Your task to perform on an android device: turn on showing notifications on the lock screen Image 0: 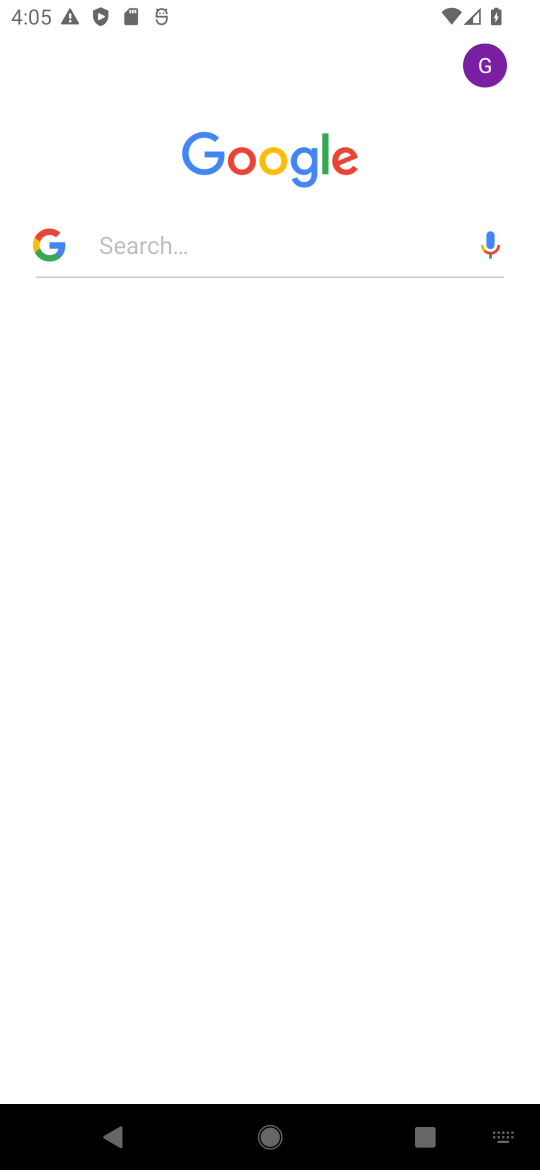
Step 0: press home button
Your task to perform on an android device: turn on showing notifications on the lock screen Image 1: 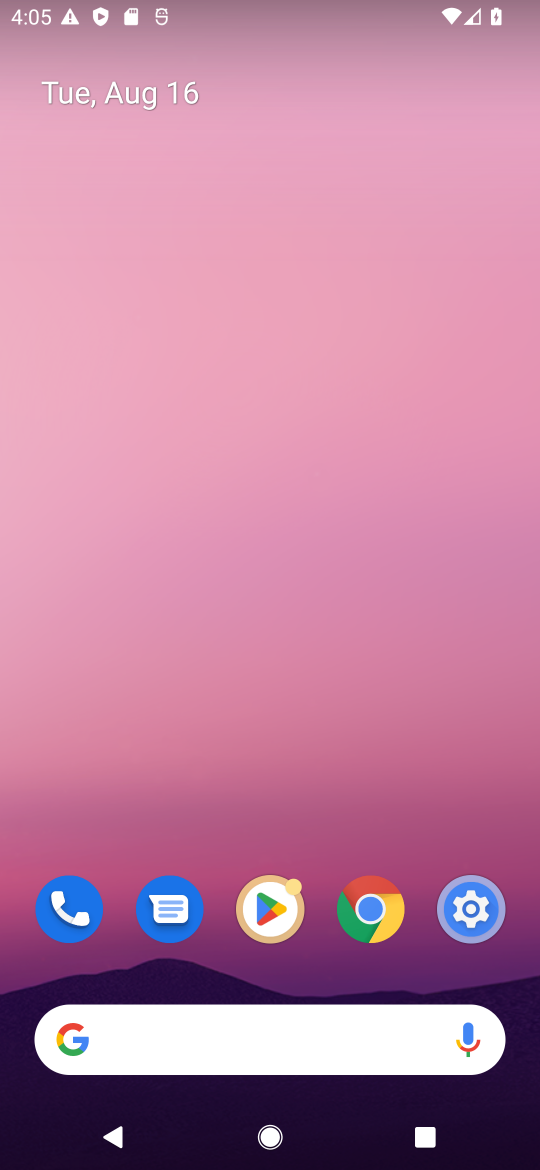
Step 1: drag from (416, 836) to (474, 233)
Your task to perform on an android device: turn on showing notifications on the lock screen Image 2: 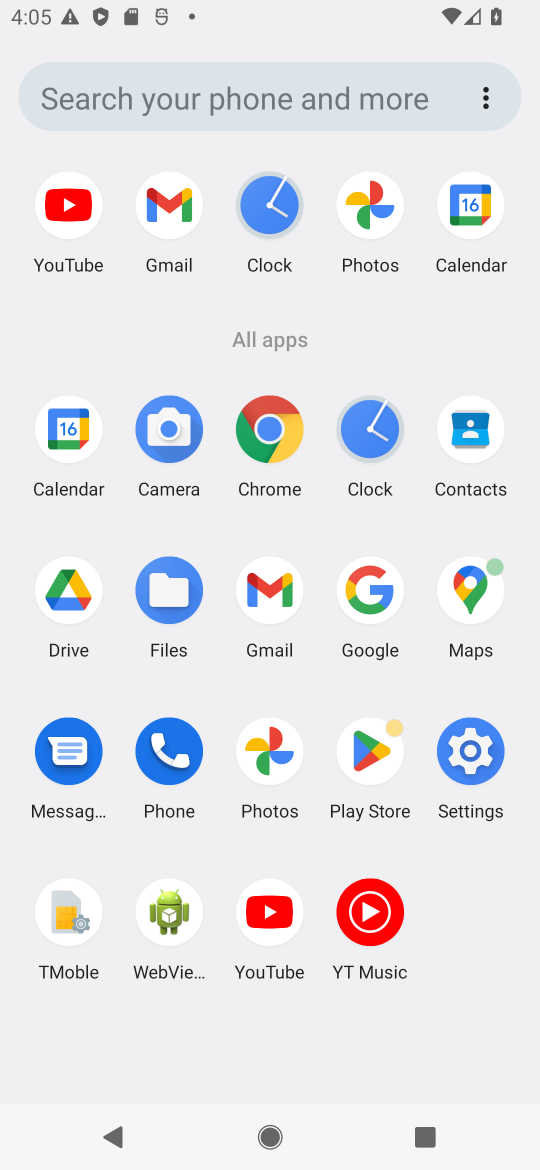
Step 2: click (469, 759)
Your task to perform on an android device: turn on showing notifications on the lock screen Image 3: 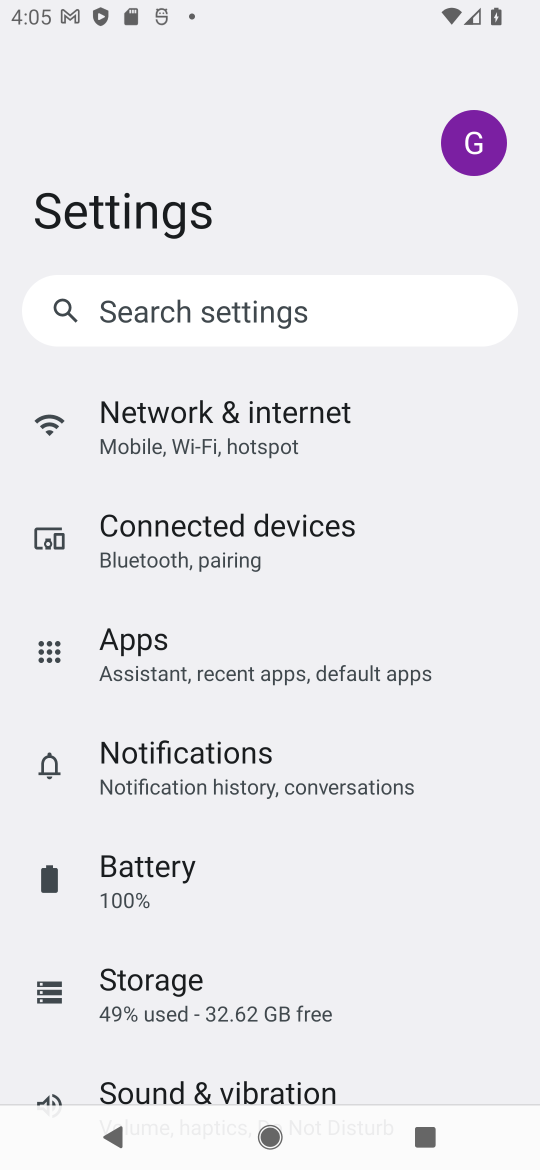
Step 3: click (248, 754)
Your task to perform on an android device: turn on showing notifications on the lock screen Image 4: 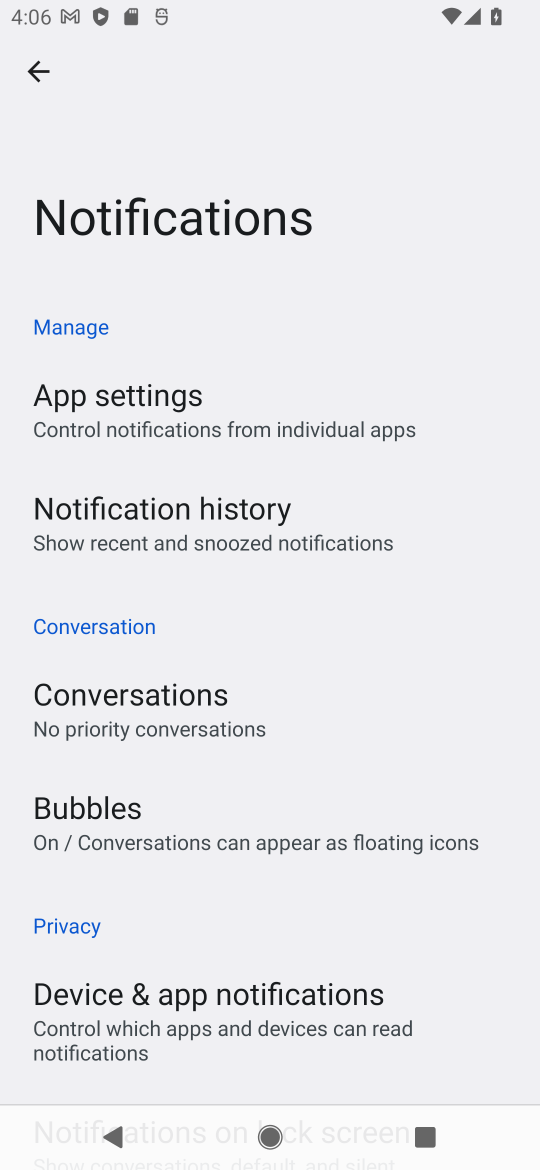
Step 4: drag from (303, 932) to (349, 140)
Your task to perform on an android device: turn on showing notifications on the lock screen Image 5: 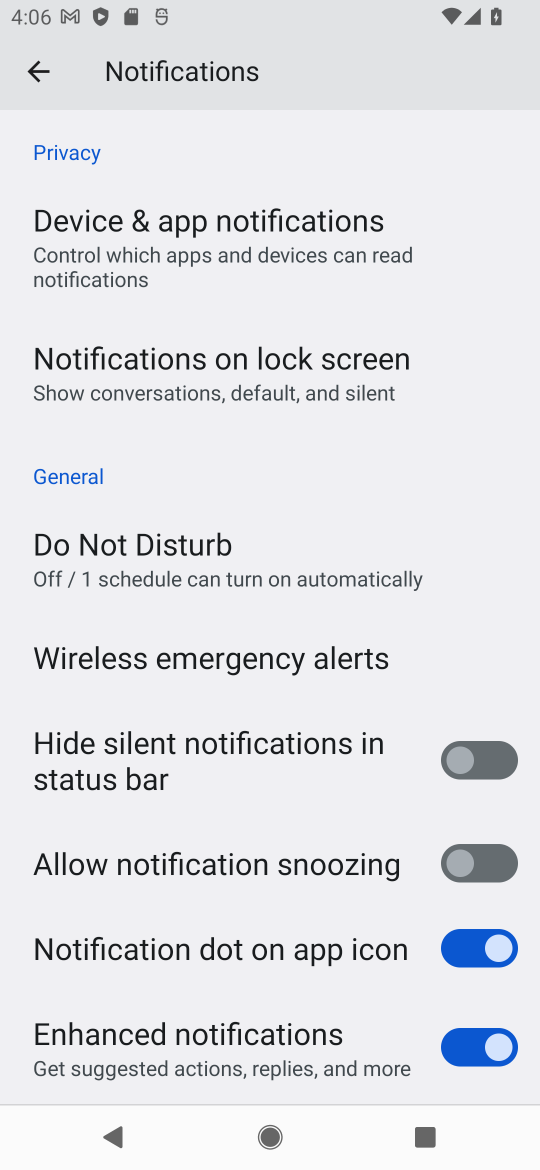
Step 5: drag from (257, 980) to (268, 429)
Your task to perform on an android device: turn on showing notifications on the lock screen Image 6: 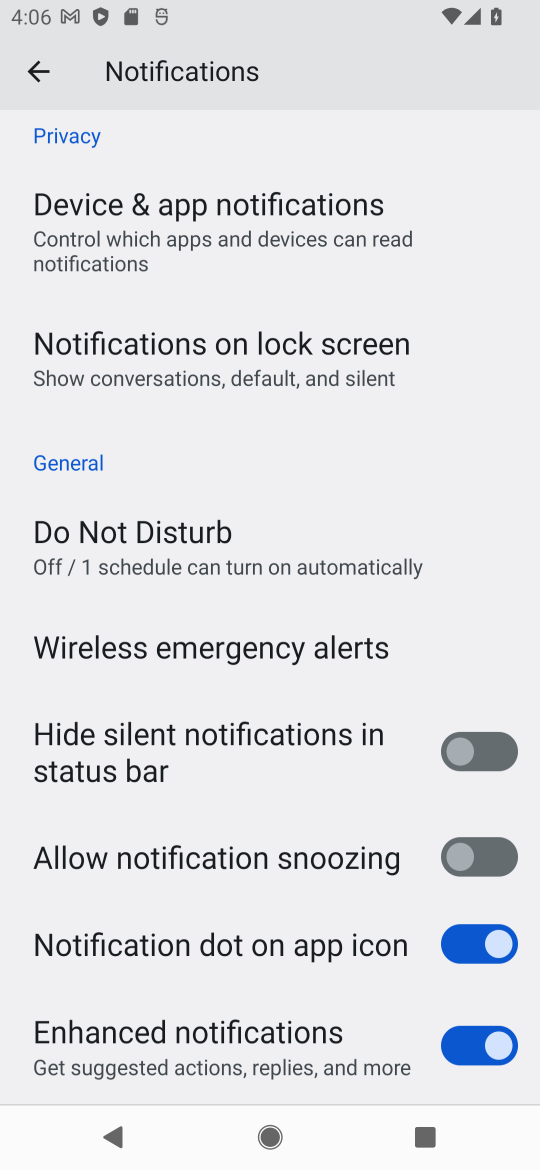
Step 6: click (264, 365)
Your task to perform on an android device: turn on showing notifications on the lock screen Image 7: 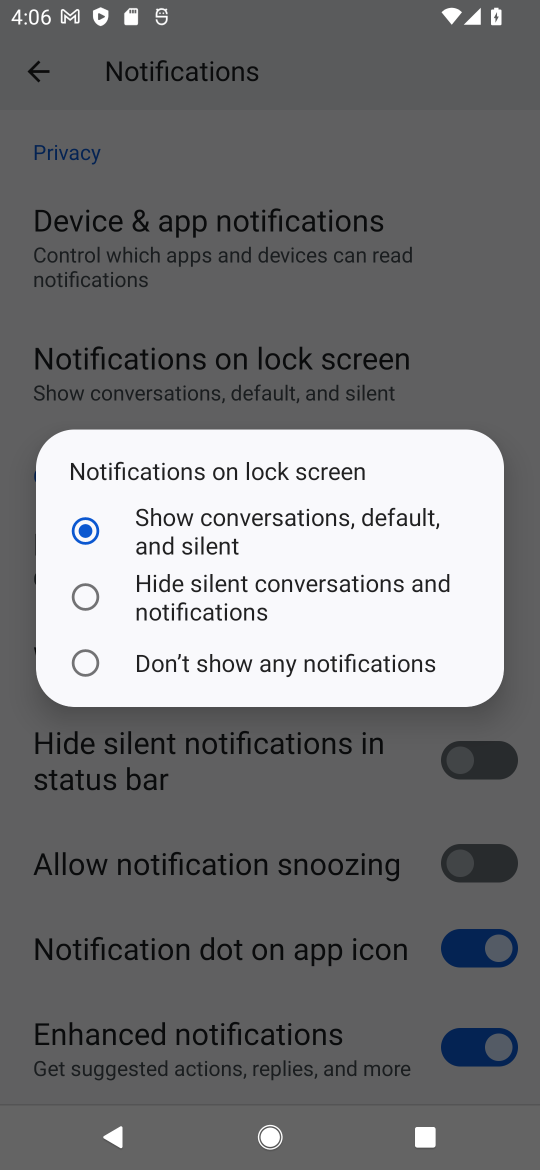
Step 7: task complete